Your task to perform on an android device: Open Amazon Image 0: 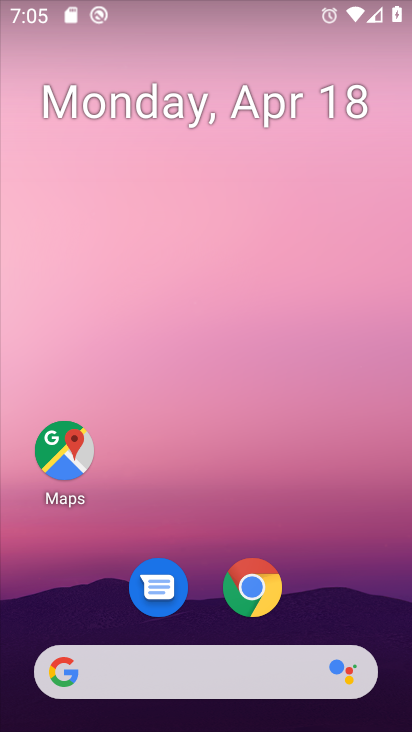
Step 0: click (274, 588)
Your task to perform on an android device: Open Amazon Image 1: 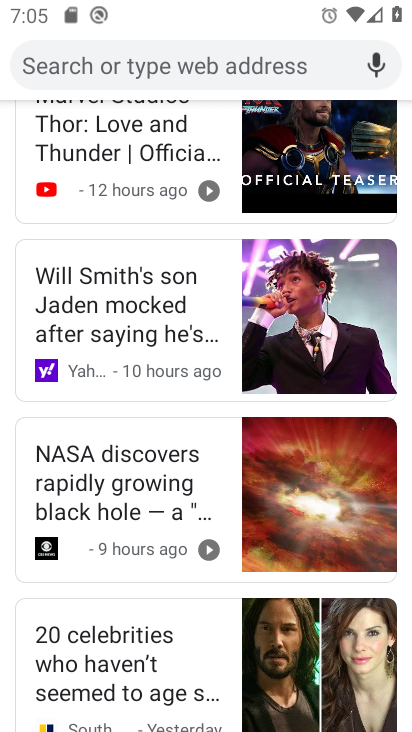
Step 1: drag from (252, 245) to (191, 675)
Your task to perform on an android device: Open Amazon Image 2: 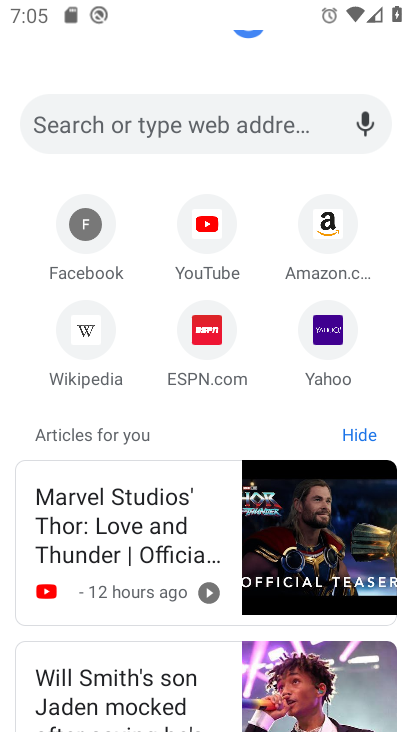
Step 2: click (323, 259)
Your task to perform on an android device: Open Amazon Image 3: 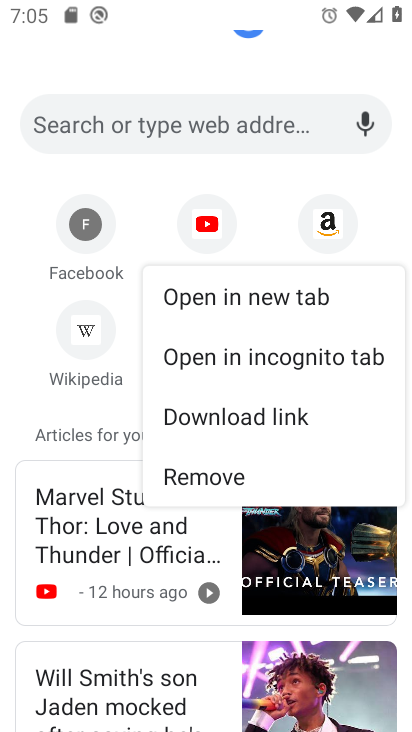
Step 3: click (319, 221)
Your task to perform on an android device: Open Amazon Image 4: 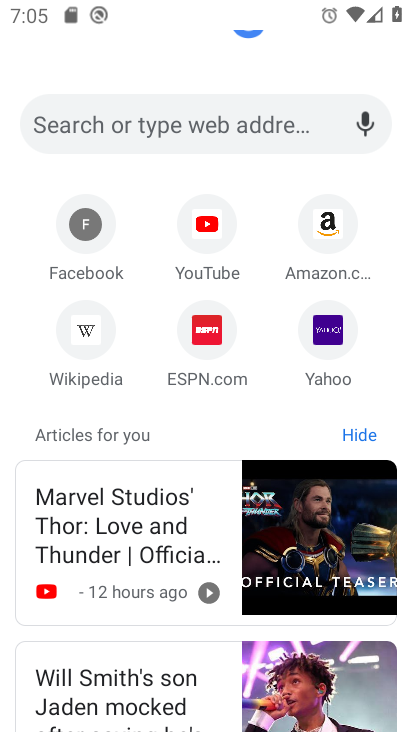
Step 4: click (319, 221)
Your task to perform on an android device: Open Amazon Image 5: 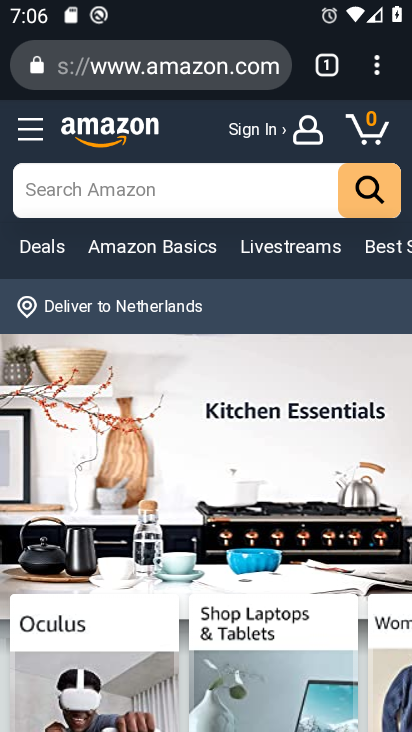
Step 5: task complete